Your task to perform on an android device: toggle sleep mode Image 0: 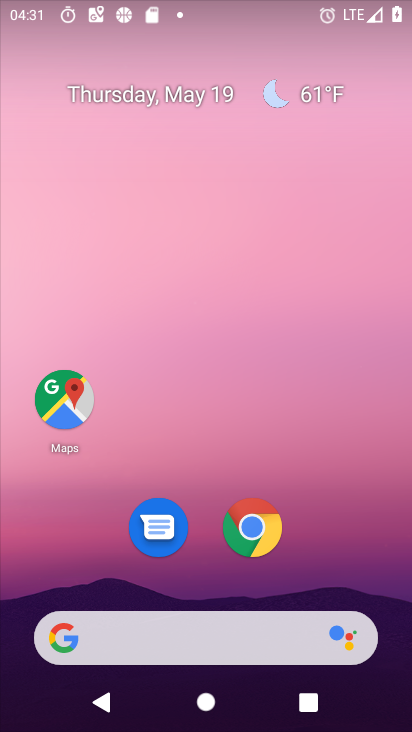
Step 0: drag from (194, 548) to (285, 115)
Your task to perform on an android device: toggle sleep mode Image 1: 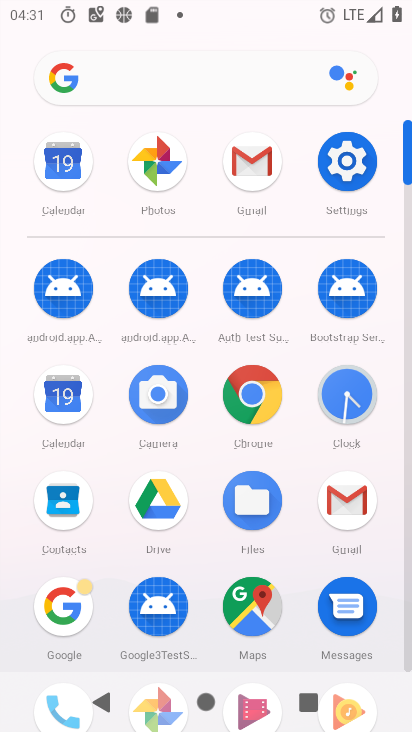
Step 1: click (329, 170)
Your task to perform on an android device: toggle sleep mode Image 2: 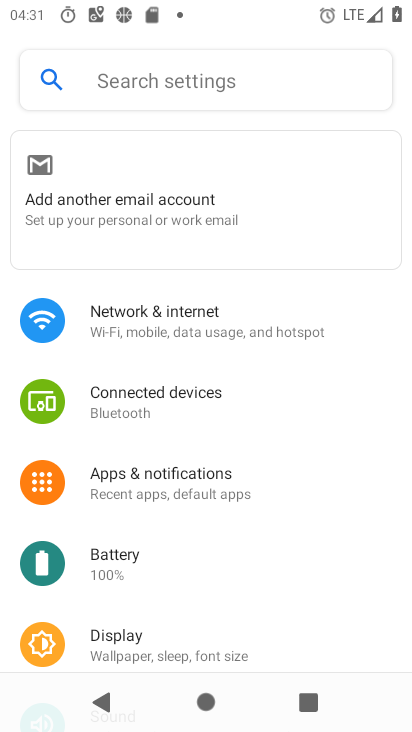
Step 2: click (139, 84)
Your task to perform on an android device: toggle sleep mode Image 3: 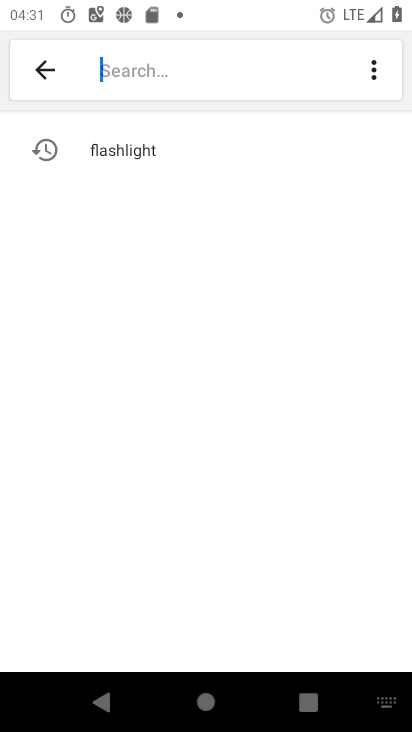
Step 3: type "sleep mode"
Your task to perform on an android device: toggle sleep mode Image 4: 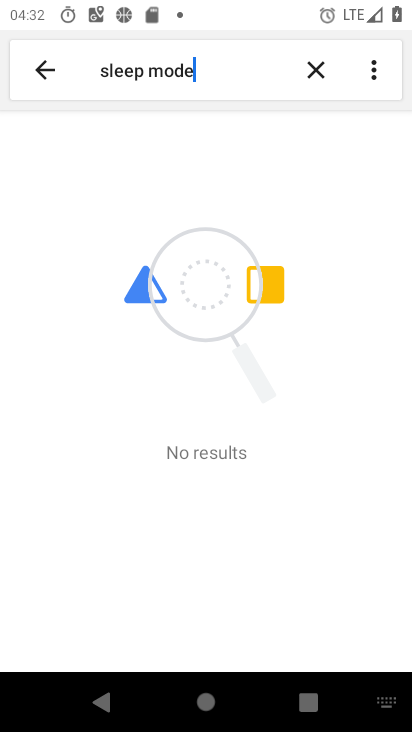
Step 4: task complete